Your task to perform on an android device: find photos in the google photos app Image 0: 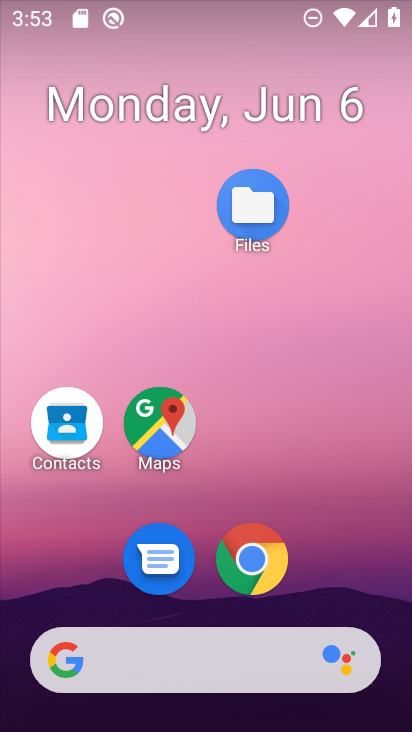
Step 0: drag from (246, 627) to (224, 92)
Your task to perform on an android device: find photos in the google photos app Image 1: 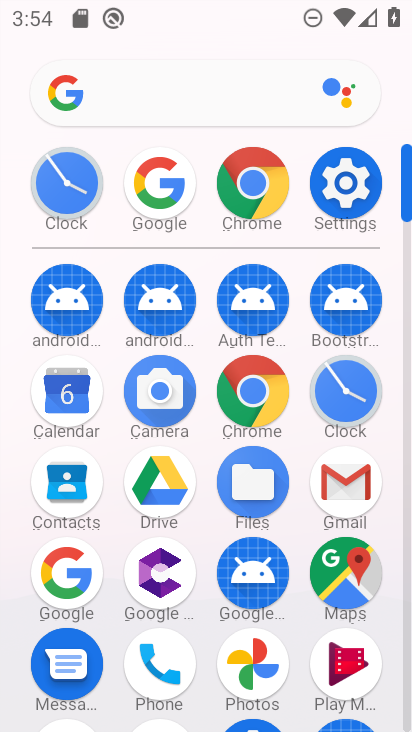
Step 1: click (235, 655)
Your task to perform on an android device: find photos in the google photos app Image 2: 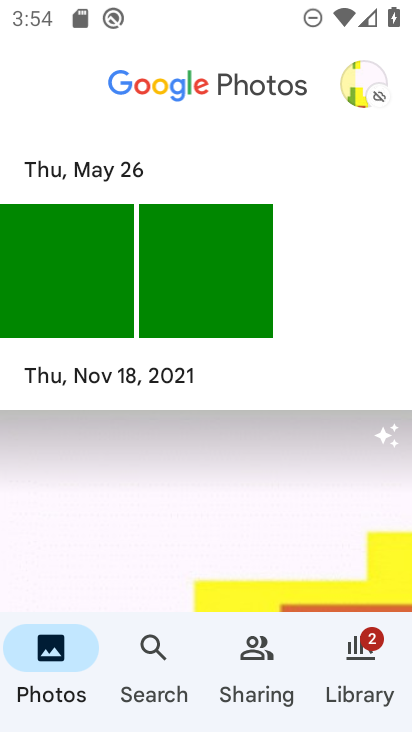
Step 2: task complete